Your task to perform on an android device: When is my next meeting? Image 0: 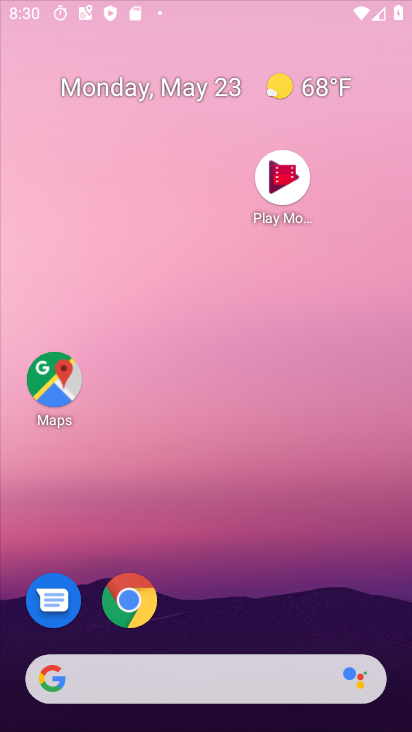
Step 0: drag from (293, 615) to (249, 128)
Your task to perform on an android device: When is my next meeting? Image 1: 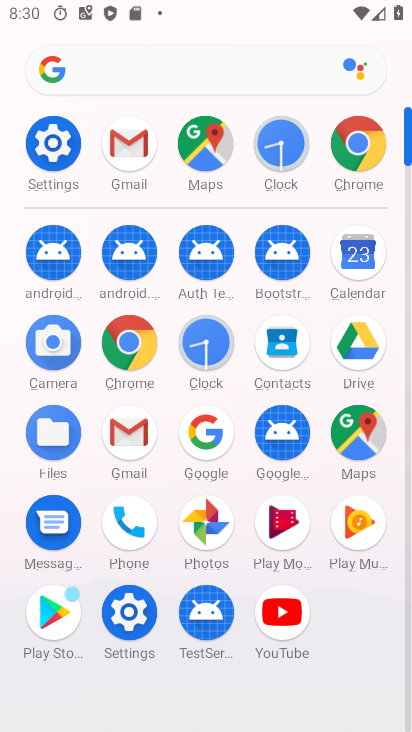
Step 1: click (372, 254)
Your task to perform on an android device: When is my next meeting? Image 2: 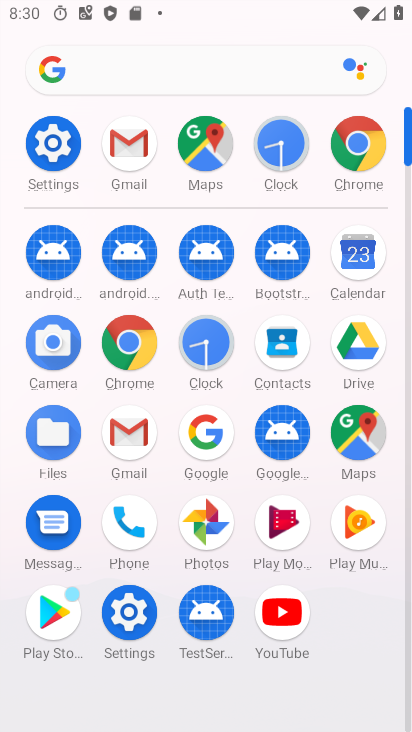
Step 2: click (371, 253)
Your task to perform on an android device: When is my next meeting? Image 3: 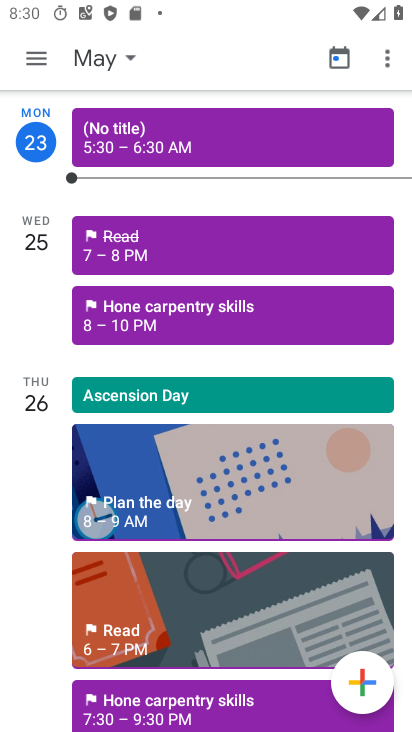
Step 3: drag from (96, 346) to (209, 57)
Your task to perform on an android device: When is my next meeting? Image 4: 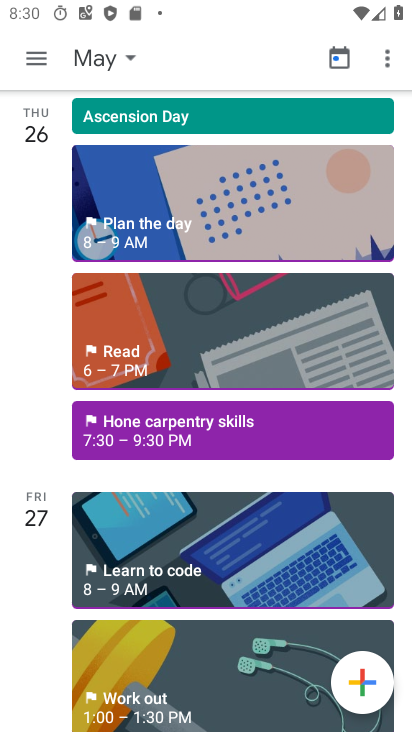
Step 4: drag from (224, 482) to (188, 88)
Your task to perform on an android device: When is my next meeting? Image 5: 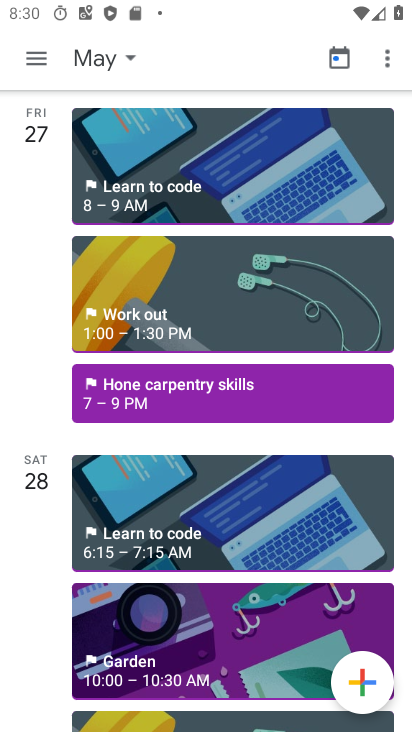
Step 5: drag from (219, 518) to (183, 52)
Your task to perform on an android device: When is my next meeting? Image 6: 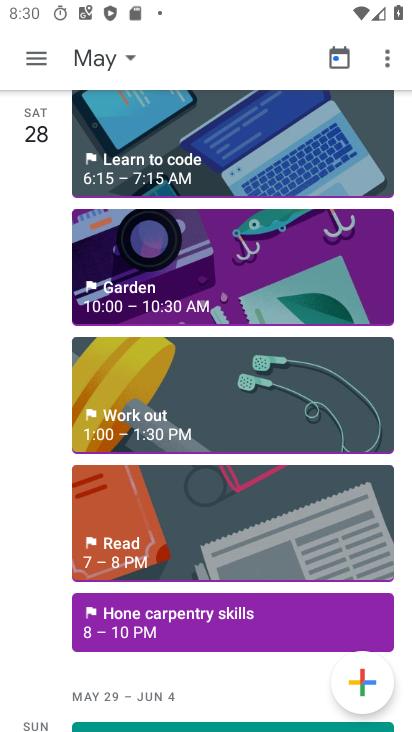
Step 6: drag from (232, 418) to (232, 46)
Your task to perform on an android device: When is my next meeting? Image 7: 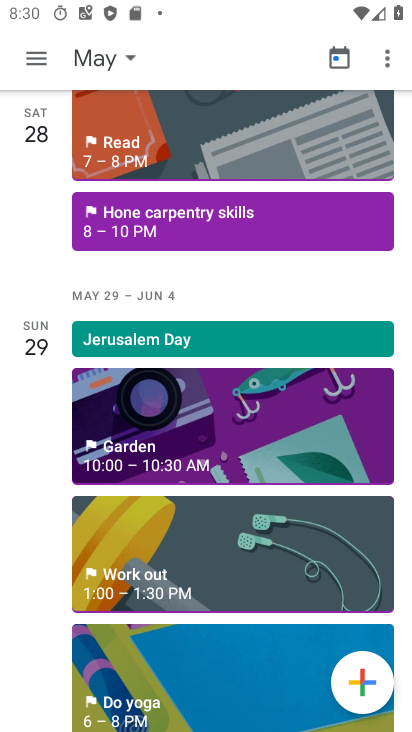
Step 7: click (192, 10)
Your task to perform on an android device: When is my next meeting? Image 8: 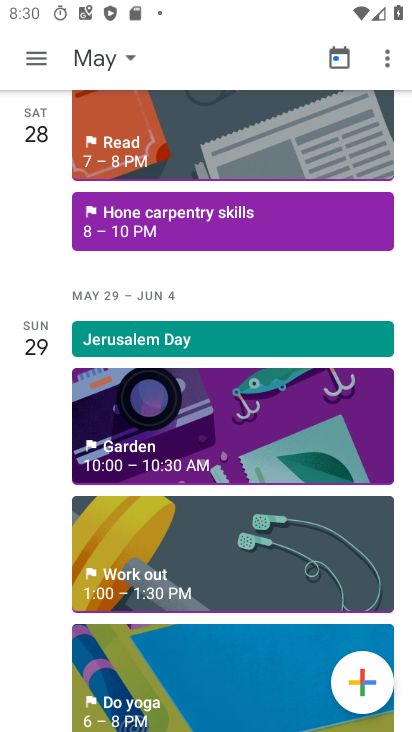
Step 8: drag from (197, 532) to (197, 104)
Your task to perform on an android device: When is my next meeting? Image 9: 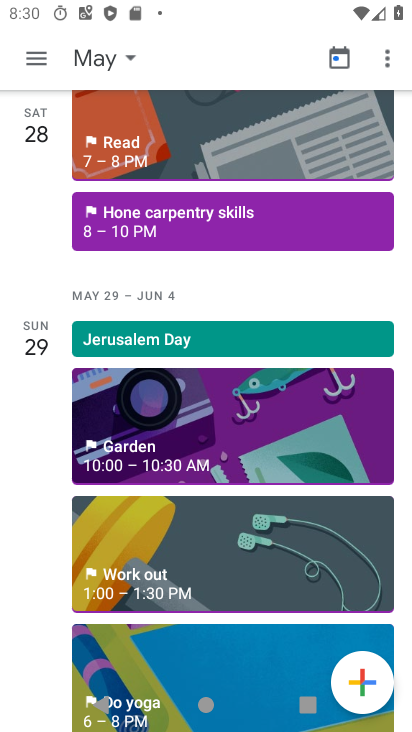
Step 9: drag from (216, 537) to (175, 129)
Your task to perform on an android device: When is my next meeting? Image 10: 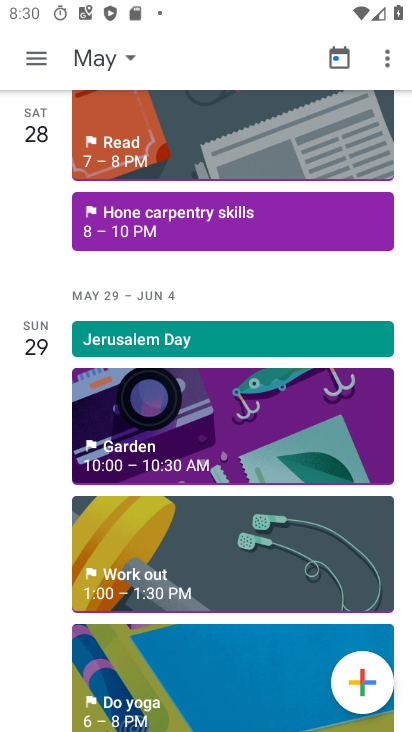
Step 10: drag from (200, 681) to (158, 258)
Your task to perform on an android device: When is my next meeting? Image 11: 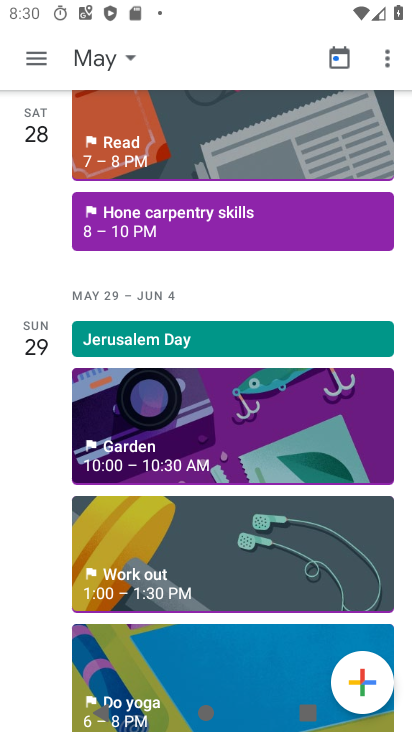
Step 11: drag from (188, 731) to (166, 316)
Your task to perform on an android device: When is my next meeting? Image 12: 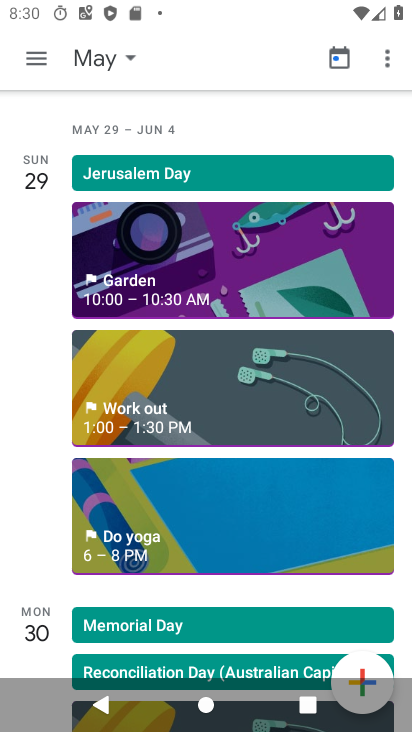
Step 12: drag from (193, 380) to (193, 146)
Your task to perform on an android device: When is my next meeting? Image 13: 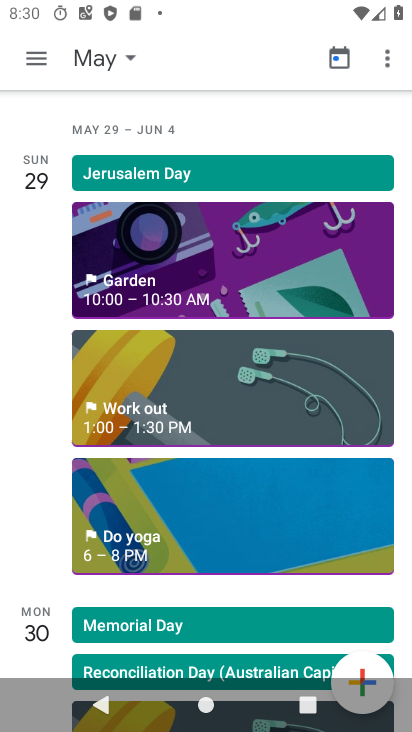
Step 13: drag from (225, 521) to (225, 165)
Your task to perform on an android device: When is my next meeting? Image 14: 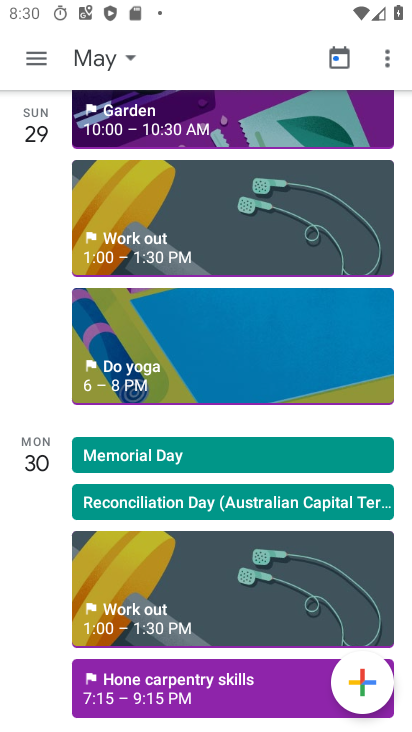
Step 14: drag from (271, 541) to (219, 166)
Your task to perform on an android device: When is my next meeting? Image 15: 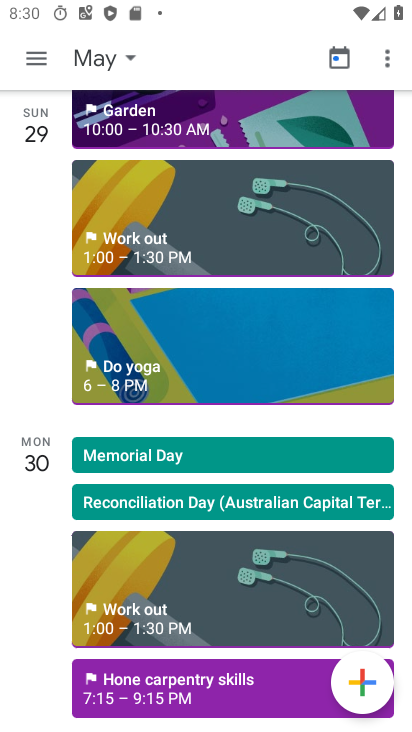
Step 15: drag from (242, 235) to (229, 128)
Your task to perform on an android device: When is my next meeting? Image 16: 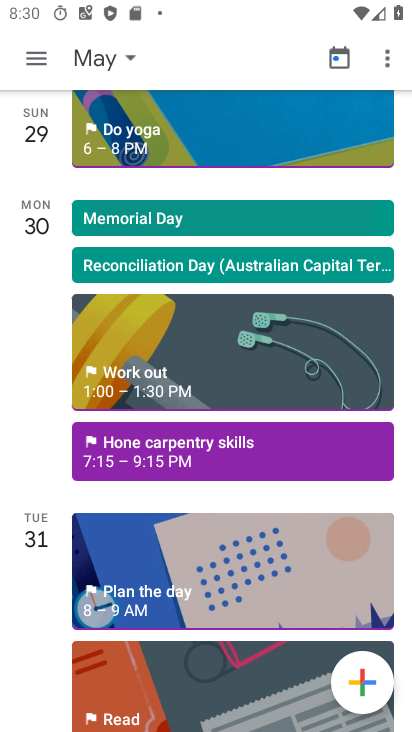
Step 16: drag from (218, 507) to (173, 166)
Your task to perform on an android device: When is my next meeting? Image 17: 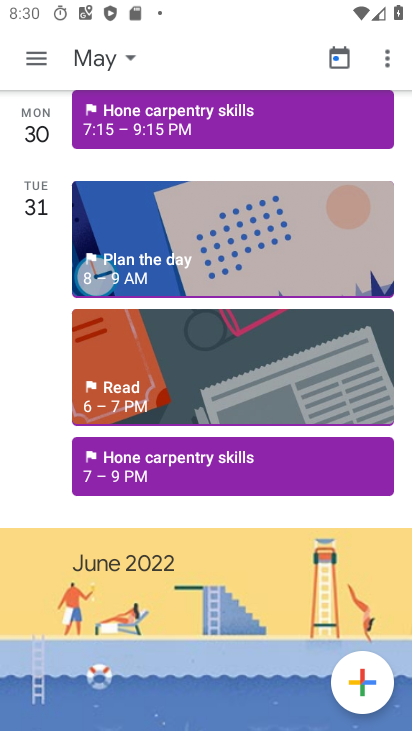
Step 17: drag from (202, 475) to (201, 164)
Your task to perform on an android device: When is my next meeting? Image 18: 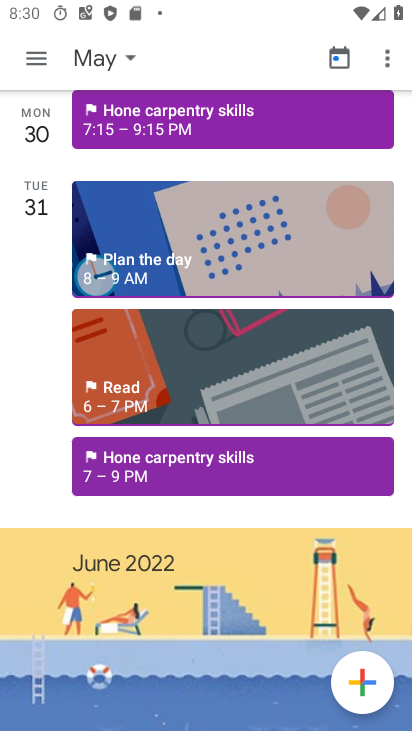
Step 18: drag from (238, 489) to (198, 102)
Your task to perform on an android device: When is my next meeting? Image 19: 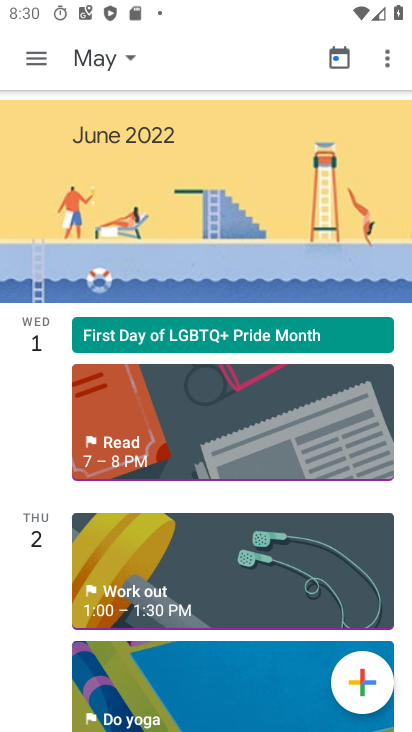
Step 19: drag from (225, 509) to (168, 87)
Your task to perform on an android device: When is my next meeting? Image 20: 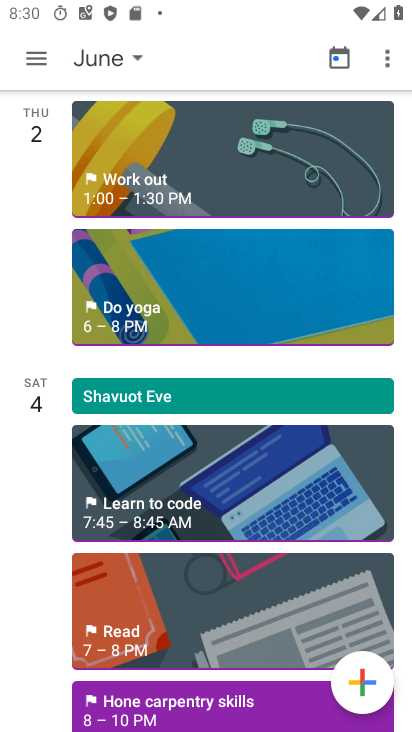
Step 20: drag from (171, 499) to (210, 35)
Your task to perform on an android device: When is my next meeting? Image 21: 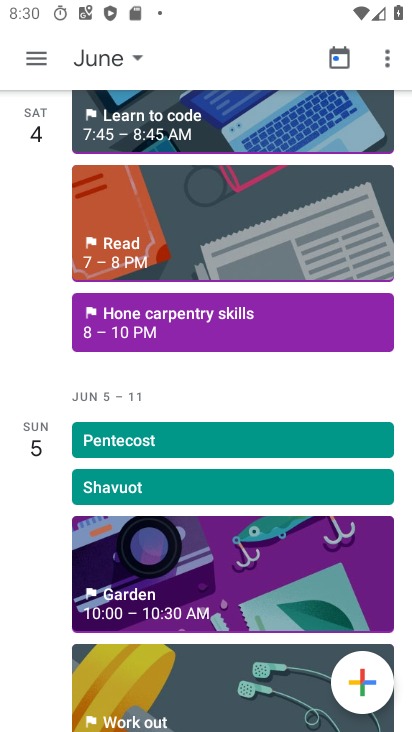
Step 21: drag from (154, 181) to (213, 614)
Your task to perform on an android device: When is my next meeting? Image 22: 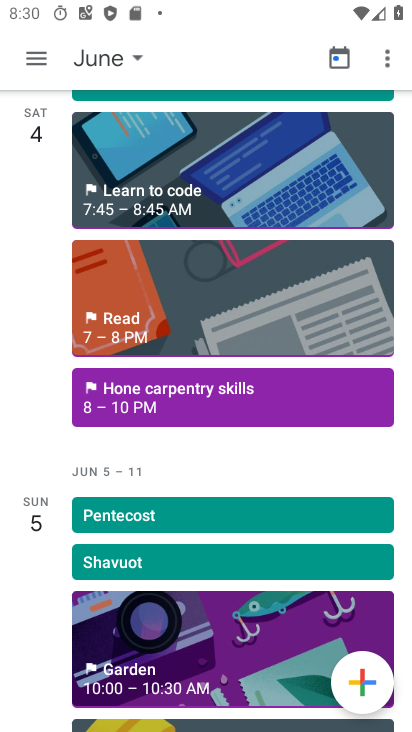
Step 22: drag from (227, 415) to (249, 530)
Your task to perform on an android device: When is my next meeting? Image 23: 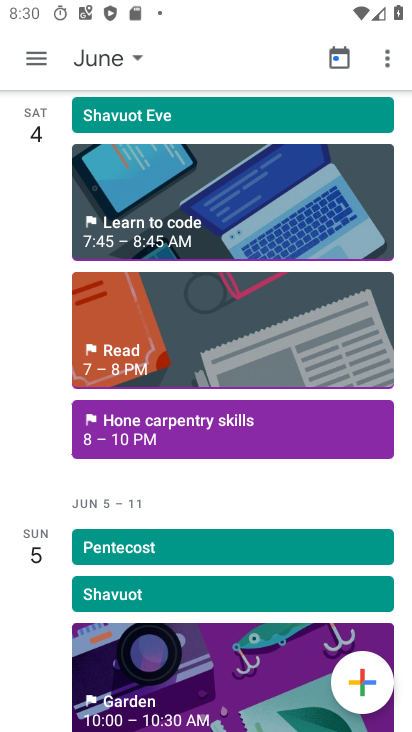
Step 23: drag from (202, 364) to (192, 434)
Your task to perform on an android device: When is my next meeting? Image 24: 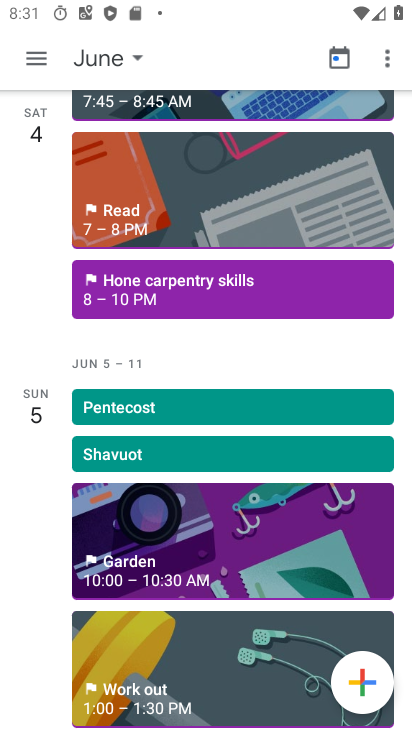
Step 24: drag from (139, 59) to (170, 78)
Your task to perform on an android device: When is my next meeting? Image 25: 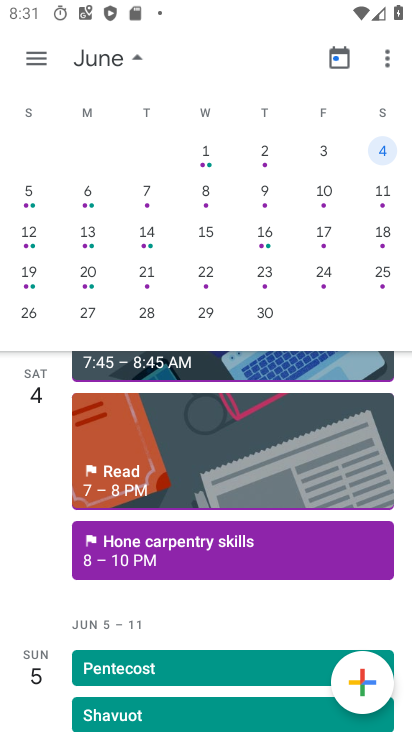
Step 25: drag from (240, 484) to (183, 187)
Your task to perform on an android device: When is my next meeting? Image 26: 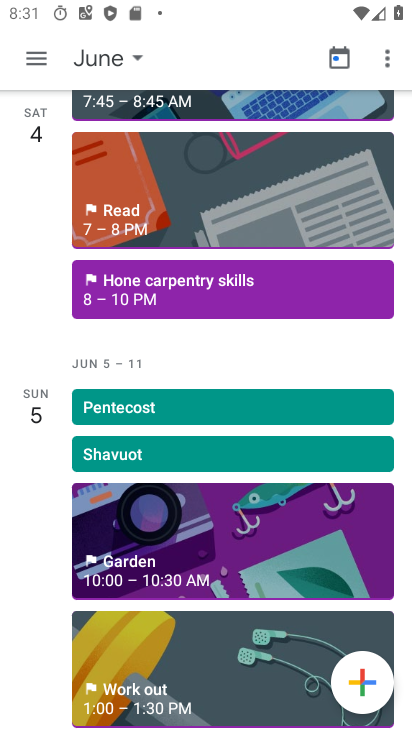
Step 26: drag from (239, 544) to (285, 139)
Your task to perform on an android device: When is my next meeting? Image 27: 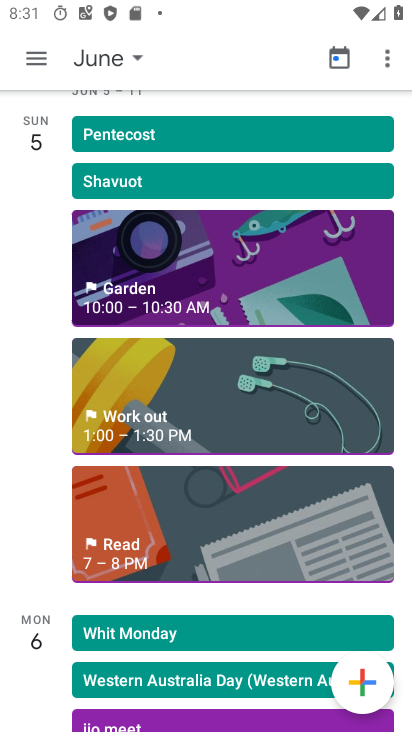
Step 27: drag from (309, 467) to (285, 67)
Your task to perform on an android device: When is my next meeting? Image 28: 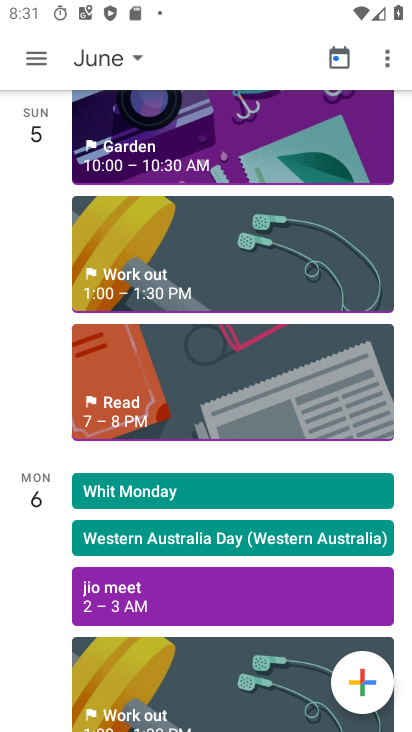
Step 28: click (250, 190)
Your task to perform on an android device: When is my next meeting? Image 29: 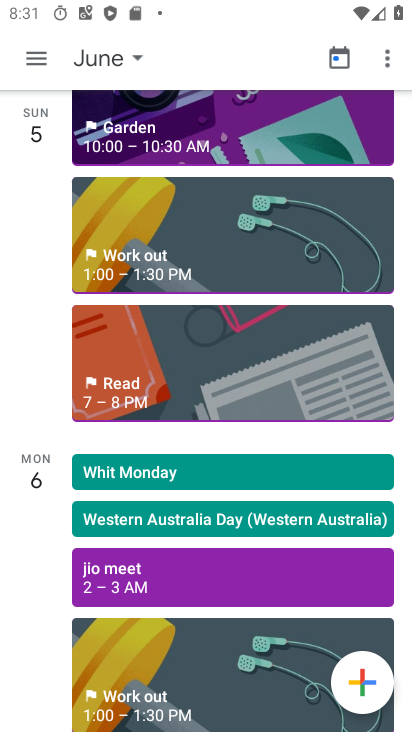
Step 29: click (223, 82)
Your task to perform on an android device: When is my next meeting? Image 30: 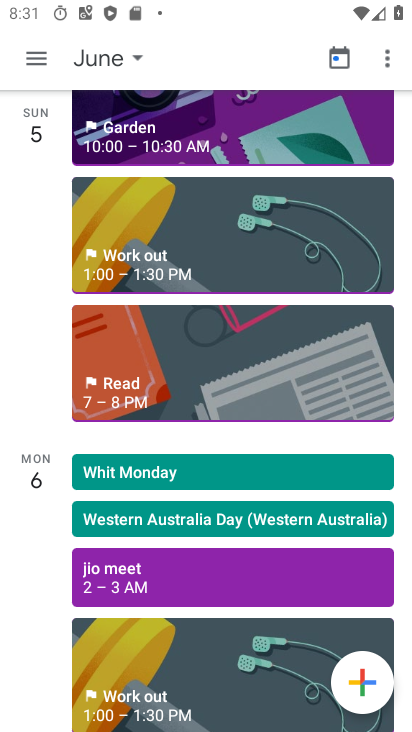
Step 30: task complete